Your task to perform on an android device: turn off sleep mode Image 0: 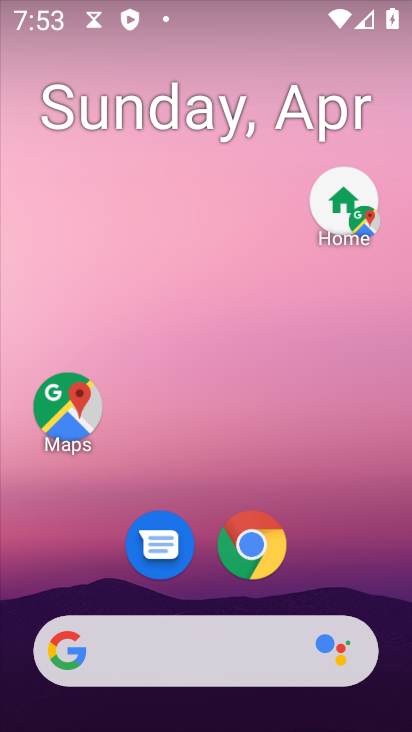
Step 0: drag from (318, 475) to (283, 240)
Your task to perform on an android device: turn off sleep mode Image 1: 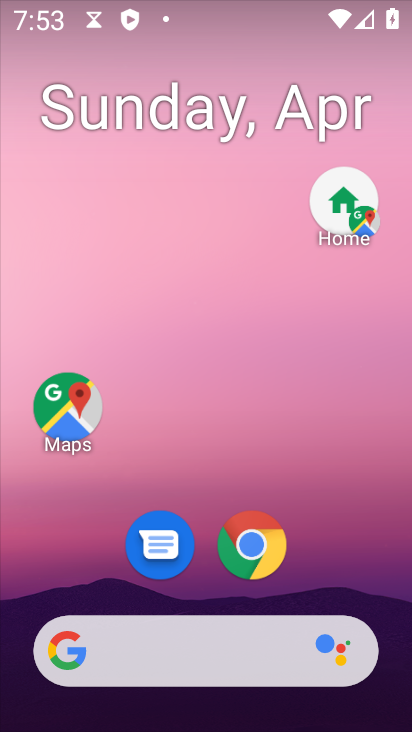
Step 1: drag from (322, 548) to (280, 165)
Your task to perform on an android device: turn off sleep mode Image 2: 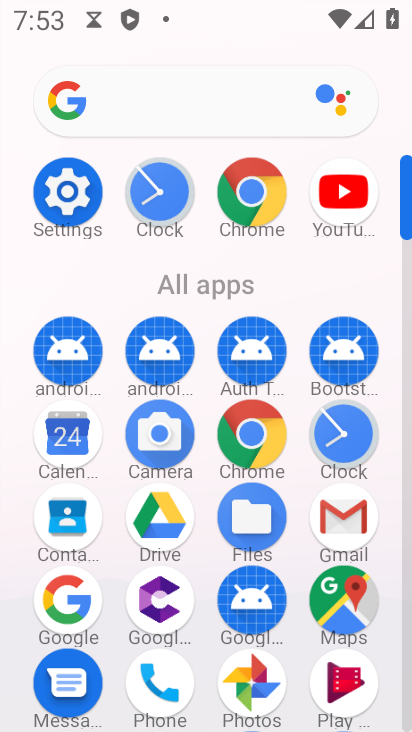
Step 2: click (54, 175)
Your task to perform on an android device: turn off sleep mode Image 3: 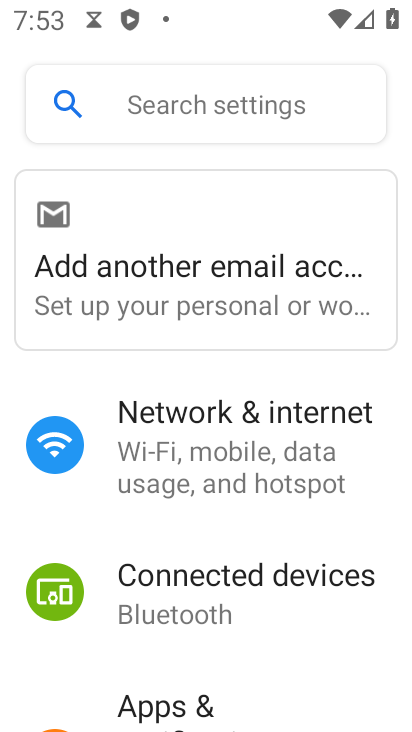
Step 3: task complete